Your task to perform on an android device: Go to privacy settings Image 0: 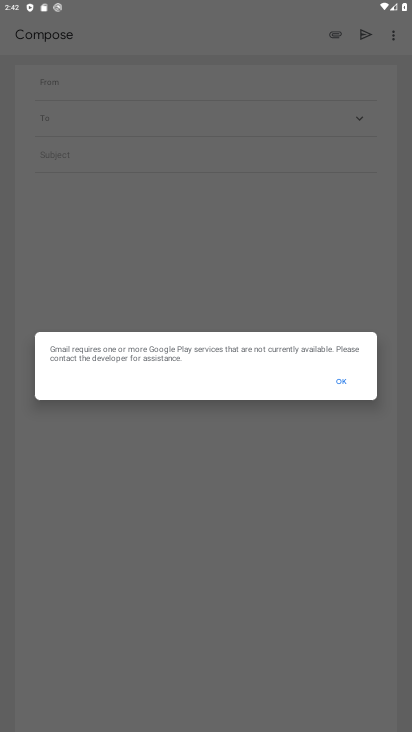
Step 0: press home button
Your task to perform on an android device: Go to privacy settings Image 1: 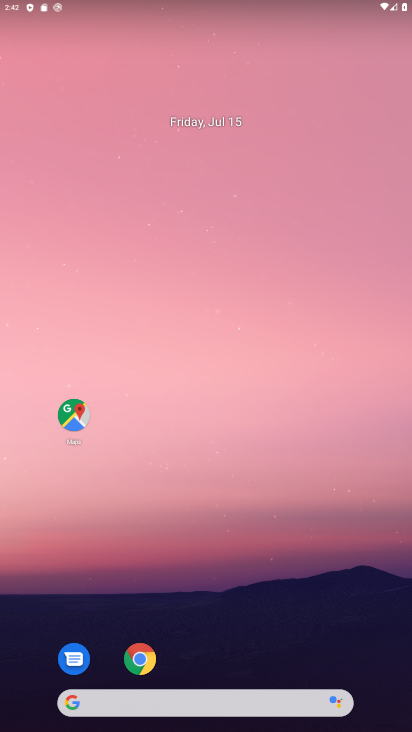
Step 1: drag from (215, 656) to (267, 0)
Your task to perform on an android device: Go to privacy settings Image 2: 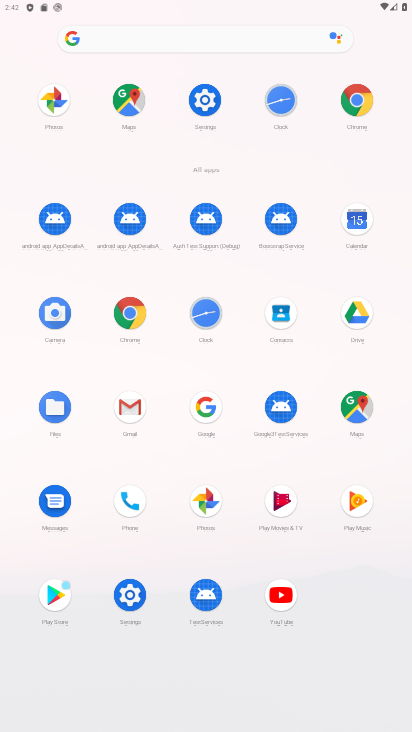
Step 2: click (136, 593)
Your task to perform on an android device: Go to privacy settings Image 3: 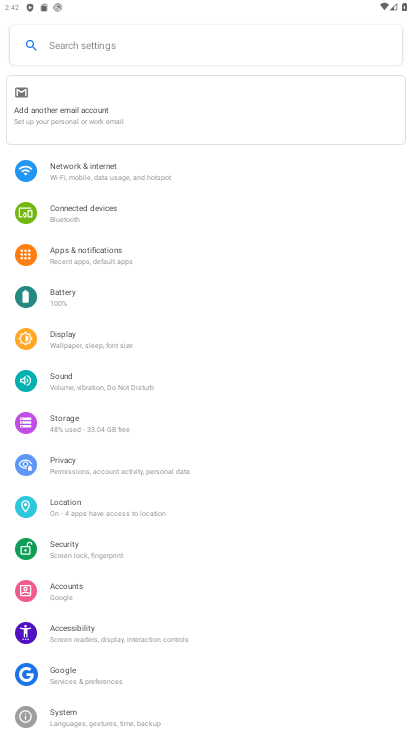
Step 3: click (75, 465)
Your task to perform on an android device: Go to privacy settings Image 4: 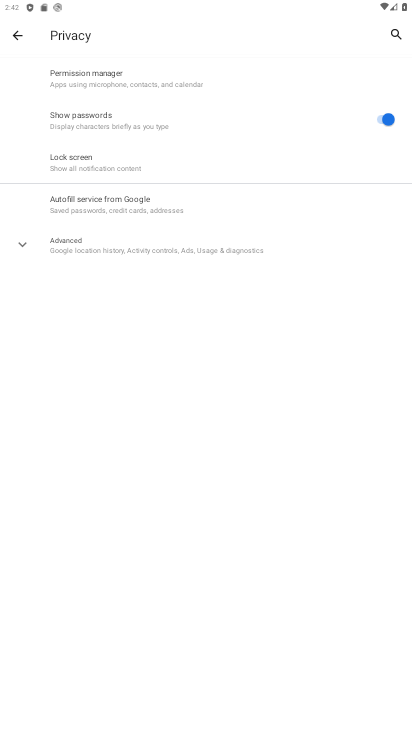
Step 4: task complete